Your task to perform on an android device: Open Amazon Image 0: 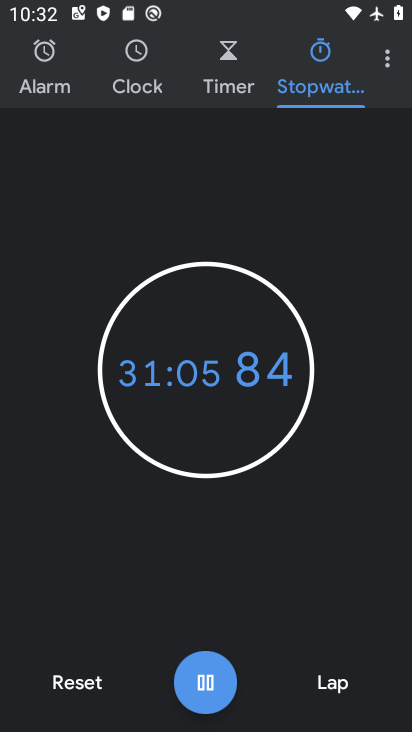
Step 0: press back button
Your task to perform on an android device: Open Amazon Image 1: 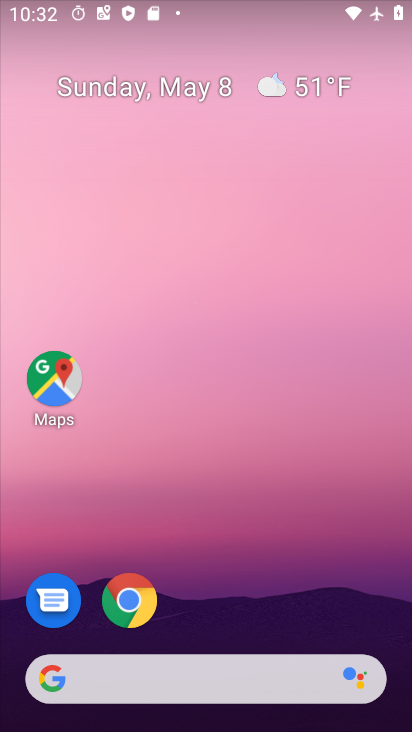
Step 1: drag from (282, 547) to (229, 9)
Your task to perform on an android device: Open Amazon Image 2: 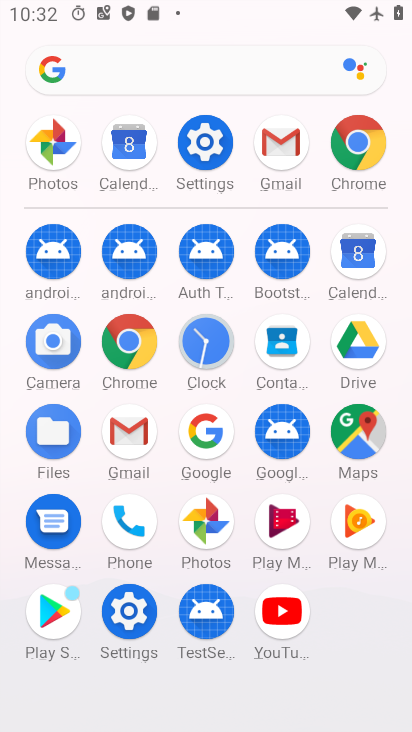
Step 2: click (357, 144)
Your task to perform on an android device: Open Amazon Image 3: 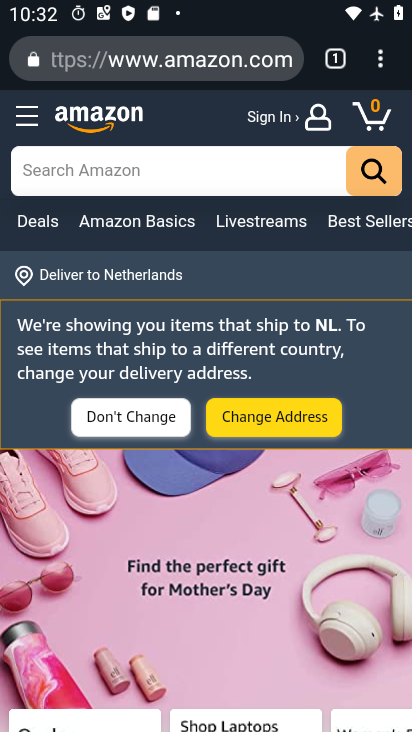
Step 3: task complete